Your task to perform on an android device: Toggle the flashlight Image 0: 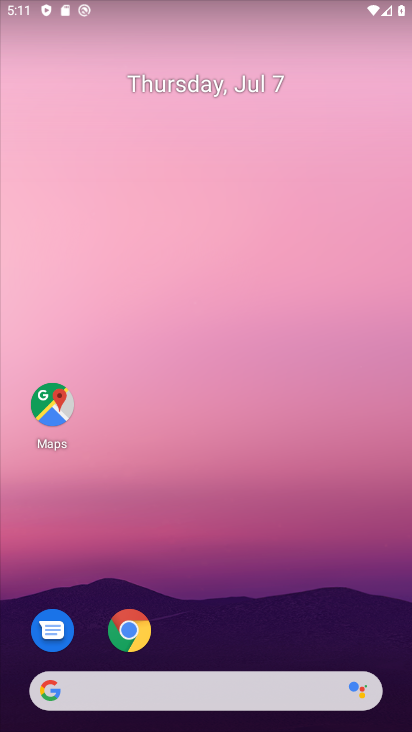
Step 0: drag from (151, 159) to (241, 77)
Your task to perform on an android device: Toggle the flashlight Image 1: 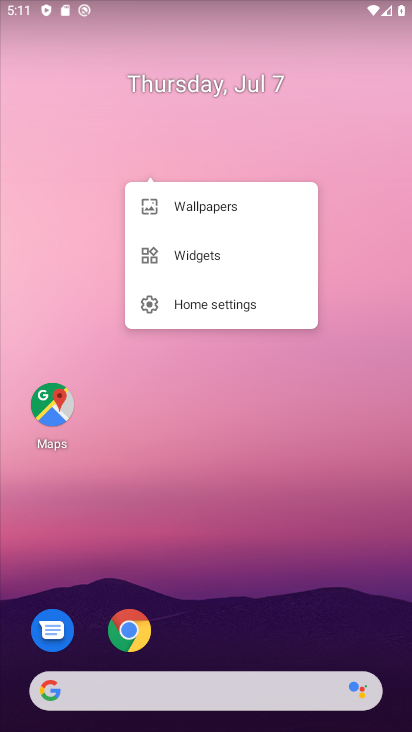
Step 1: task complete